Your task to perform on an android device: find snoozed emails in the gmail app Image 0: 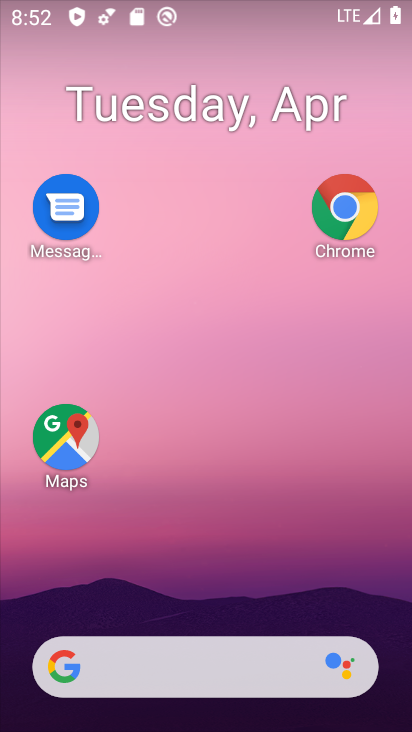
Step 0: drag from (168, 312) to (159, 1)
Your task to perform on an android device: find snoozed emails in the gmail app Image 1: 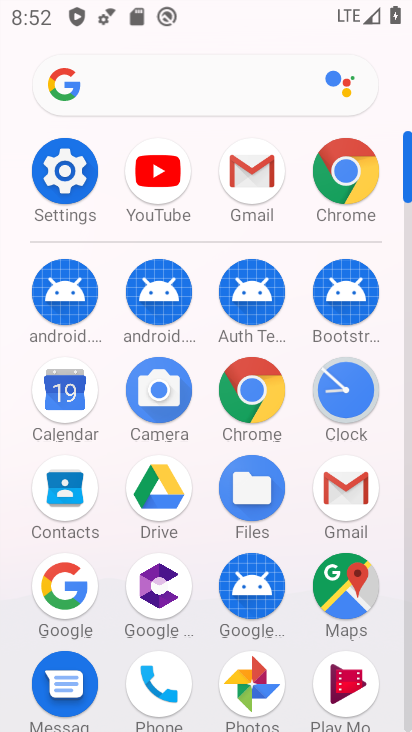
Step 1: click (350, 501)
Your task to perform on an android device: find snoozed emails in the gmail app Image 2: 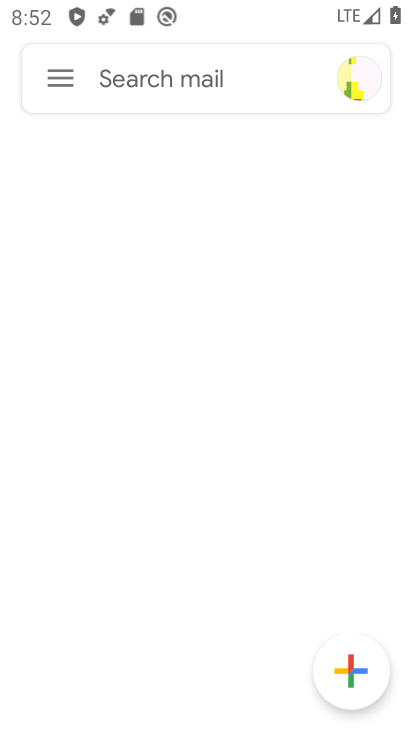
Step 2: click (60, 68)
Your task to perform on an android device: find snoozed emails in the gmail app Image 3: 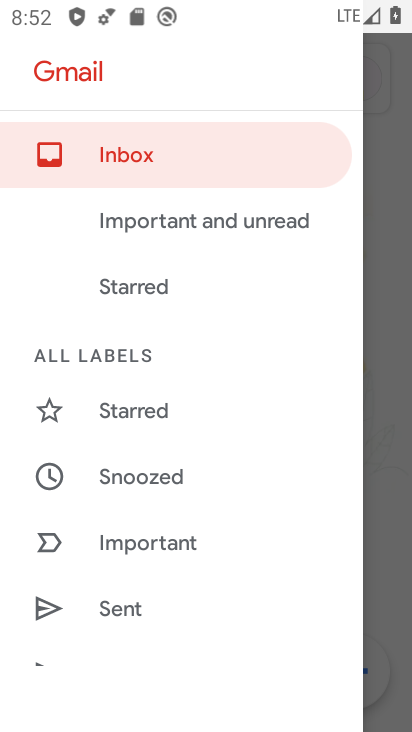
Step 3: click (136, 467)
Your task to perform on an android device: find snoozed emails in the gmail app Image 4: 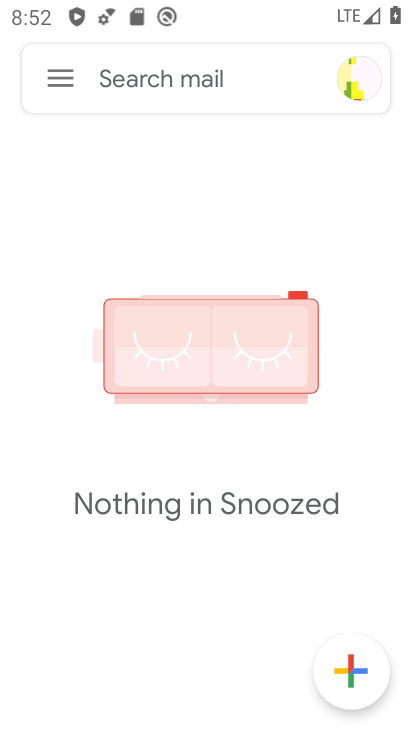
Step 4: task complete